Your task to perform on an android device: Open the calendar app, open the side menu, and click the "Day" option Image 0: 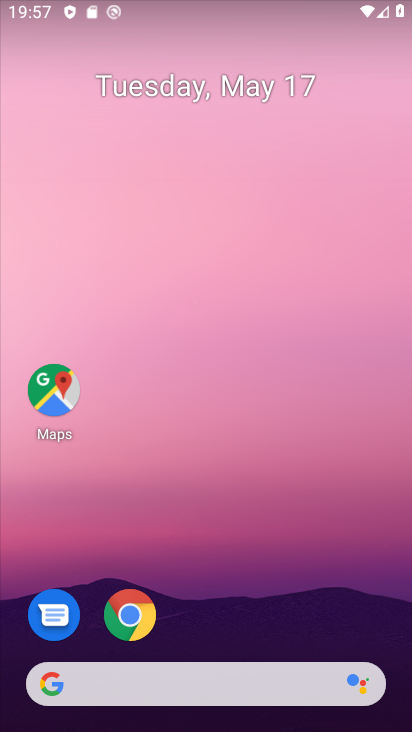
Step 0: drag from (223, 574) to (279, 135)
Your task to perform on an android device: Open the calendar app, open the side menu, and click the "Day" option Image 1: 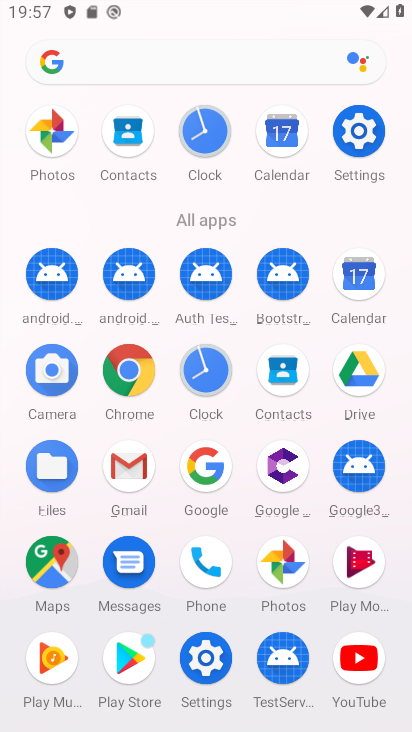
Step 1: click (347, 272)
Your task to perform on an android device: Open the calendar app, open the side menu, and click the "Day" option Image 2: 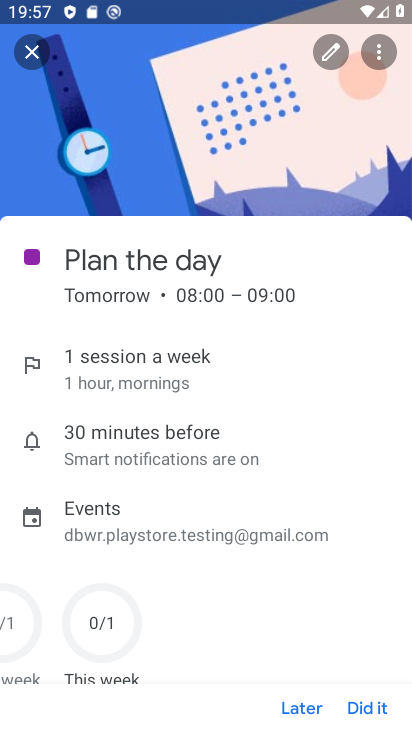
Step 2: click (34, 56)
Your task to perform on an android device: Open the calendar app, open the side menu, and click the "Day" option Image 3: 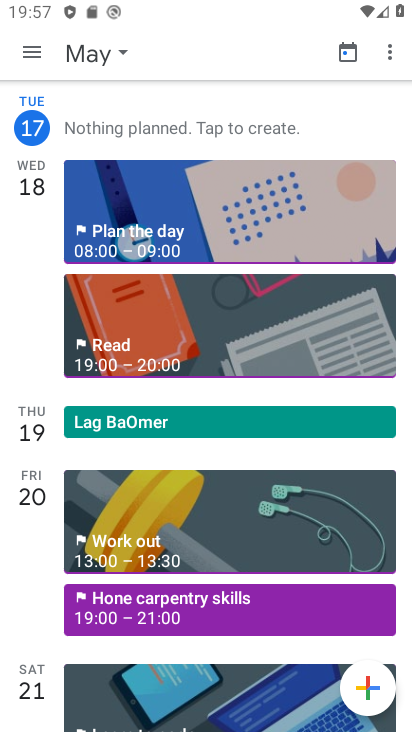
Step 3: click (26, 45)
Your task to perform on an android device: Open the calendar app, open the side menu, and click the "Day" option Image 4: 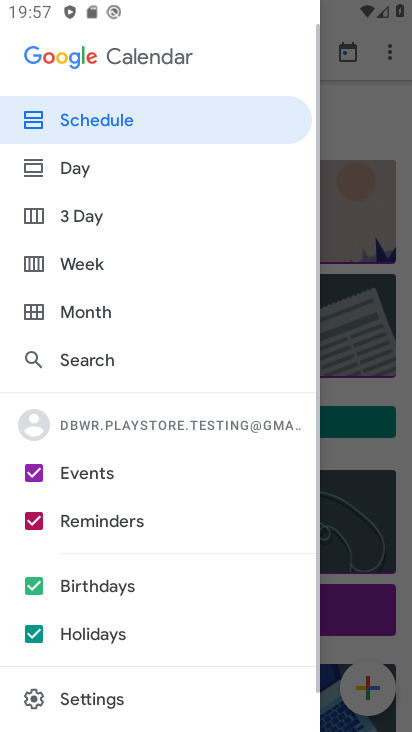
Step 4: click (66, 162)
Your task to perform on an android device: Open the calendar app, open the side menu, and click the "Day" option Image 5: 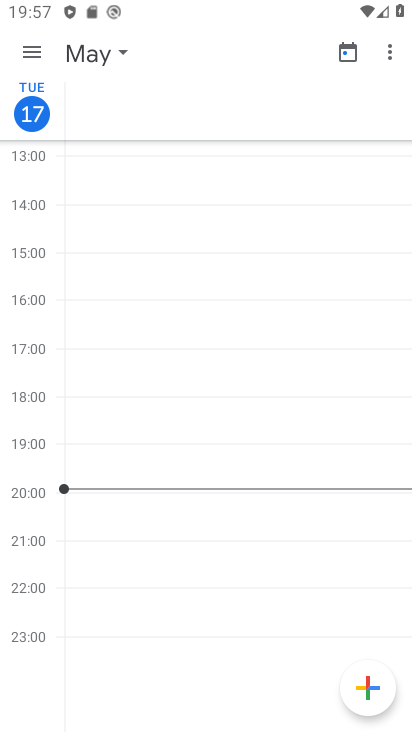
Step 5: task complete